Your task to perform on an android device: visit the assistant section in the google photos Image 0: 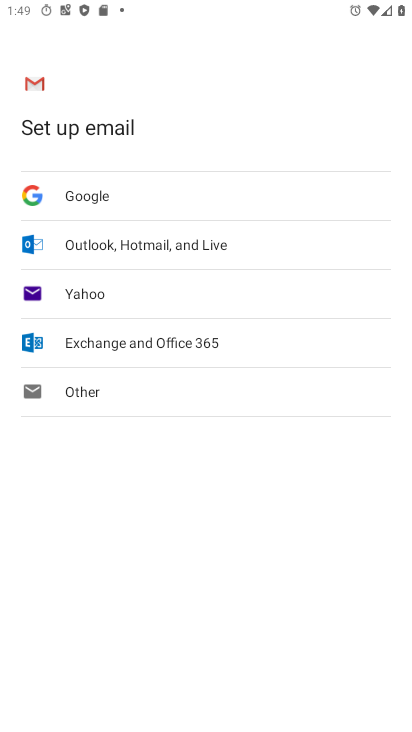
Step 0: press home button
Your task to perform on an android device: visit the assistant section in the google photos Image 1: 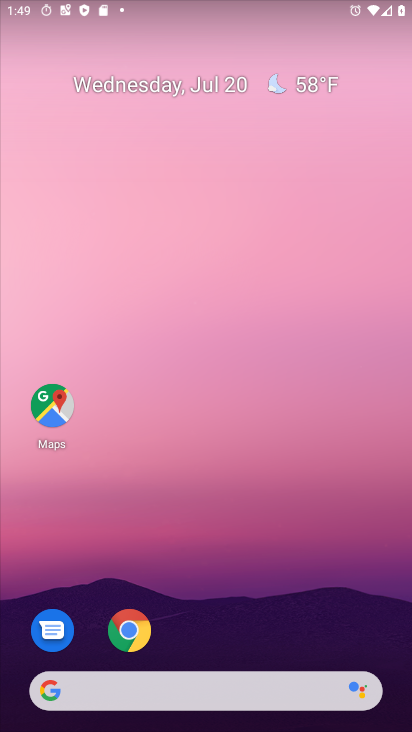
Step 1: drag from (153, 695) to (262, 262)
Your task to perform on an android device: visit the assistant section in the google photos Image 2: 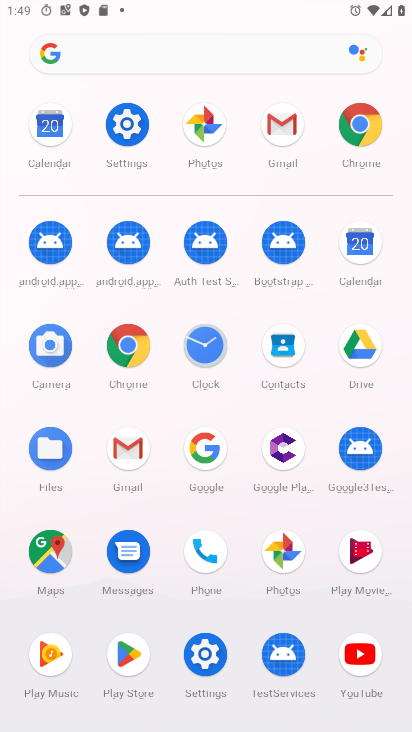
Step 2: click (291, 551)
Your task to perform on an android device: visit the assistant section in the google photos Image 3: 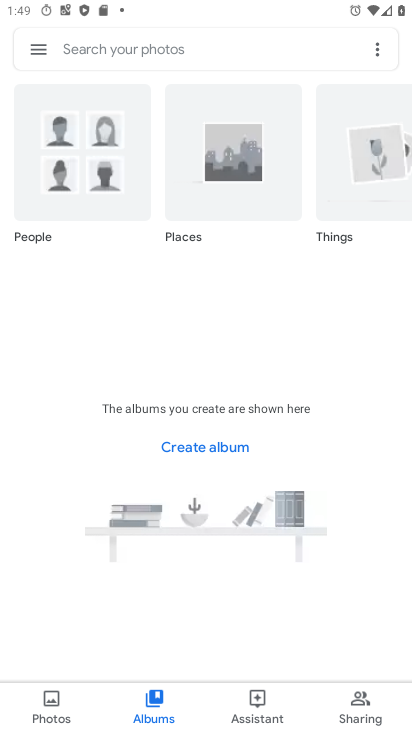
Step 3: click (258, 719)
Your task to perform on an android device: visit the assistant section in the google photos Image 4: 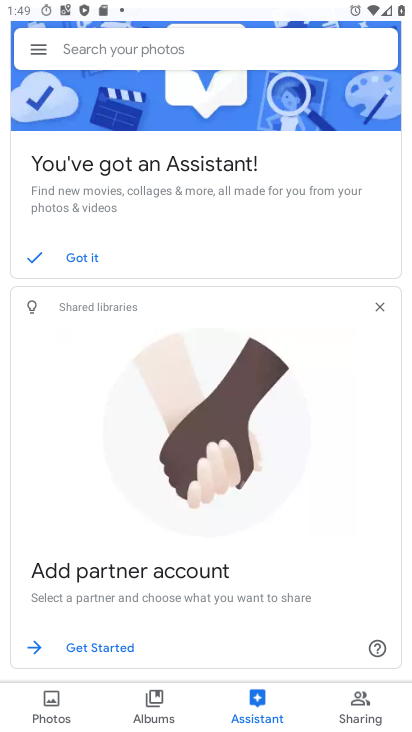
Step 4: task complete